Your task to perform on an android device: clear all cookies in the chrome app Image 0: 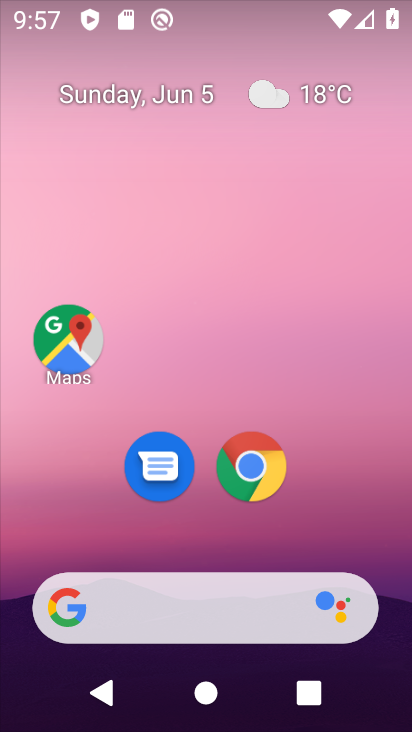
Step 0: click (250, 465)
Your task to perform on an android device: clear all cookies in the chrome app Image 1: 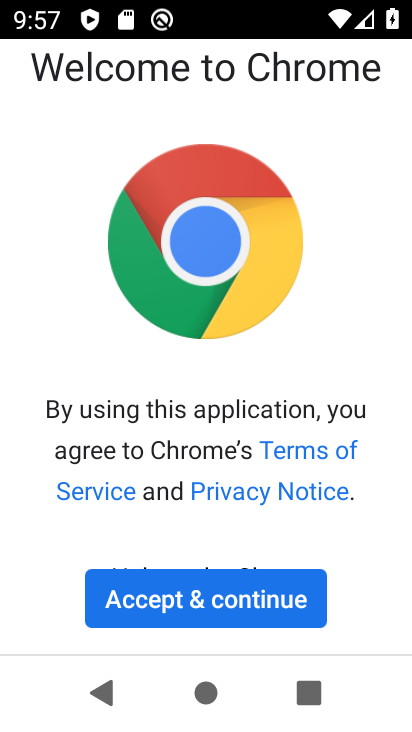
Step 1: click (203, 602)
Your task to perform on an android device: clear all cookies in the chrome app Image 2: 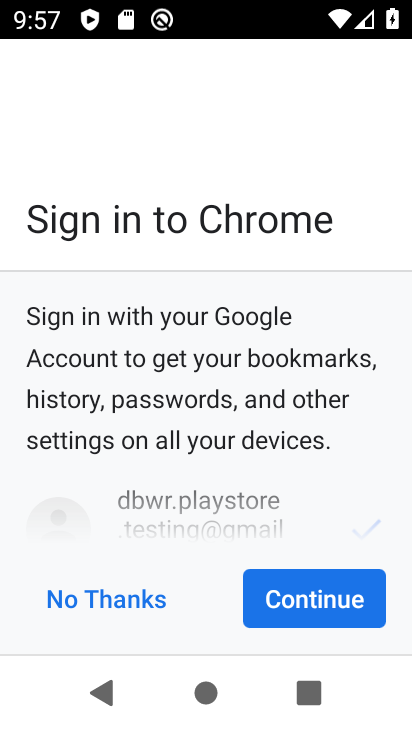
Step 2: click (309, 600)
Your task to perform on an android device: clear all cookies in the chrome app Image 3: 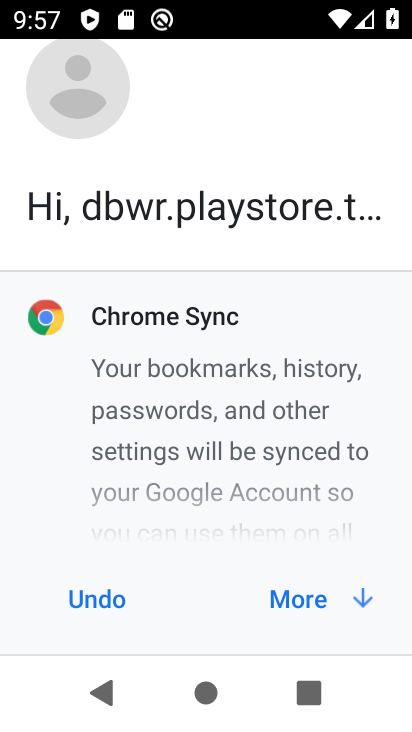
Step 3: click (309, 600)
Your task to perform on an android device: clear all cookies in the chrome app Image 4: 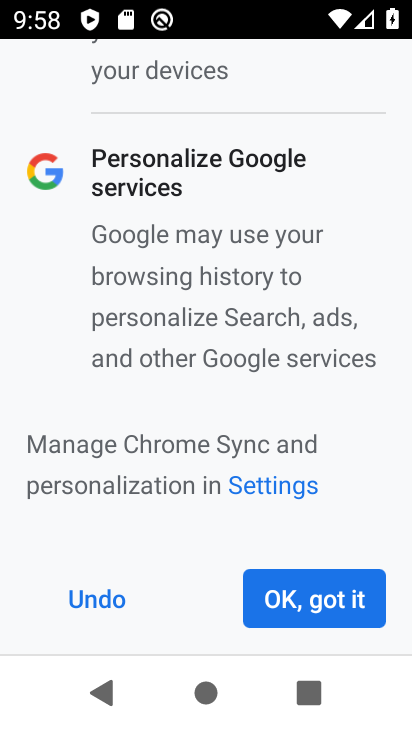
Step 4: click (309, 600)
Your task to perform on an android device: clear all cookies in the chrome app Image 5: 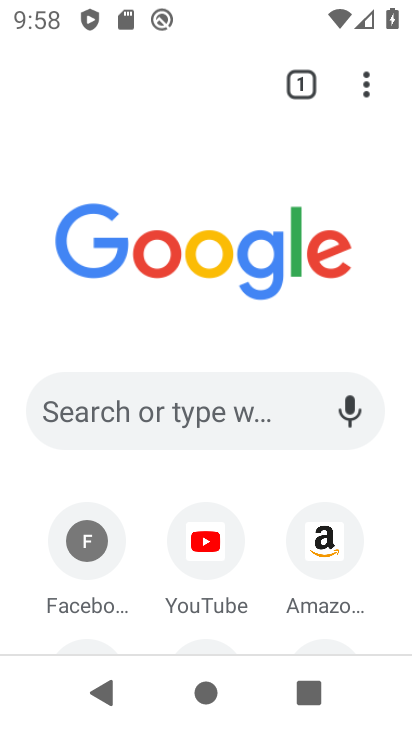
Step 5: click (368, 82)
Your task to perform on an android device: clear all cookies in the chrome app Image 6: 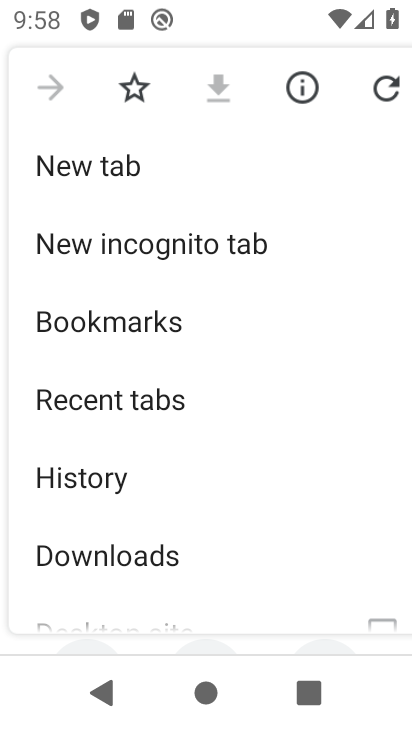
Step 6: drag from (154, 364) to (168, 268)
Your task to perform on an android device: clear all cookies in the chrome app Image 7: 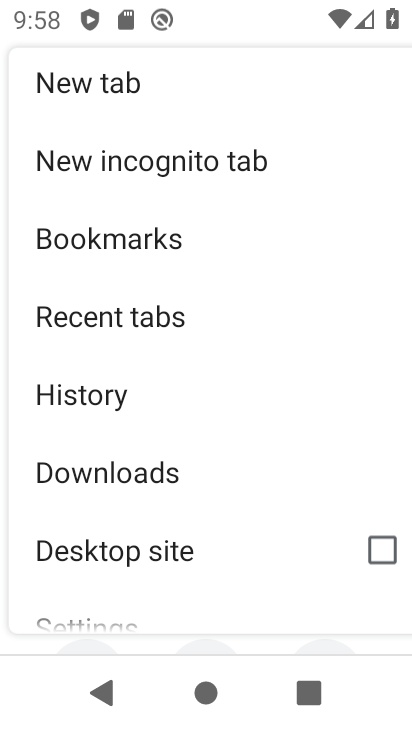
Step 7: drag from (118, 423) to (151, 338)
Your task to perform on an android device: clear all cookies in the chrome app Image 8: 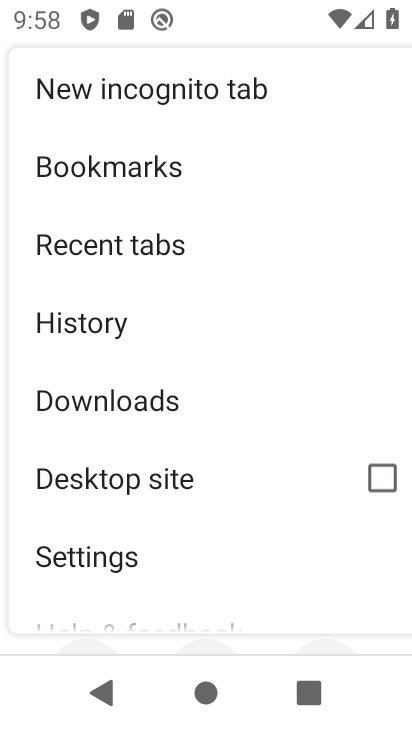
Step 8: drag from (118, 425) to (171, 333)
Your task to perform on an android device: clear all cookies in the chrome app Image 9: 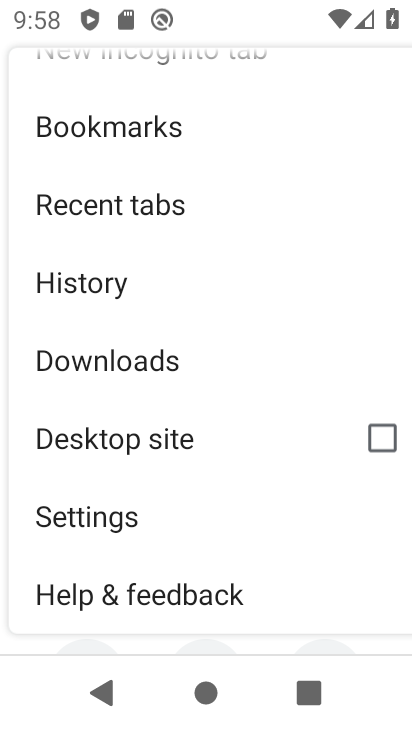
Step 9: drag from (109, 474) to (166, 356)
Your task to perform on an android device: clear all cookies in the chrome app Image 10: 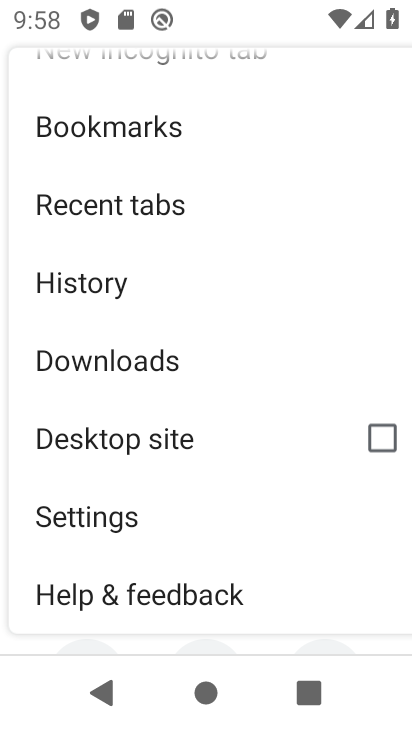
Step 10: click (113, 519)
Your task to perform on an android device: clear all cookies in the chrome app Image 11: 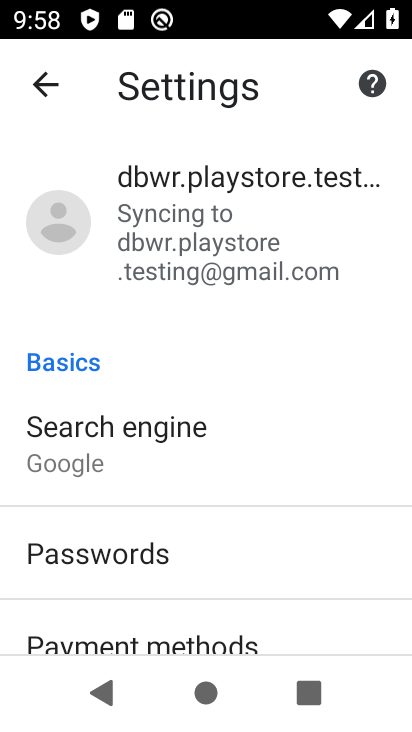
Step 11: drag from (204, 536) to (232, 415)
Your task to perform on an android device: clear all cookies in the chrome app Image 12: 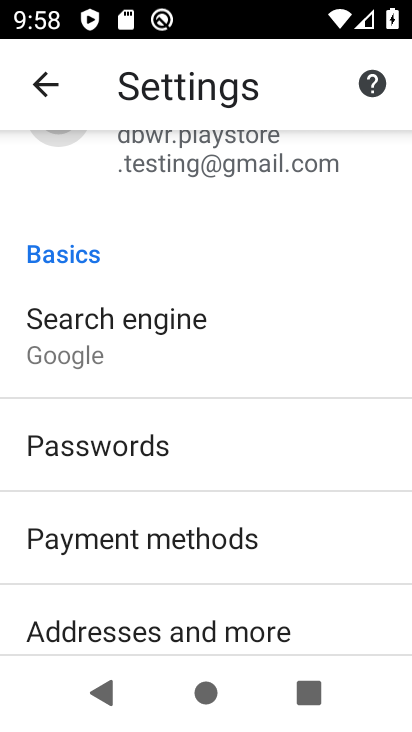
Step 12: drag from (217, 558) to (288, 443)
Your task to perform on an android device: clear all cookies in the chrome app Image 13: 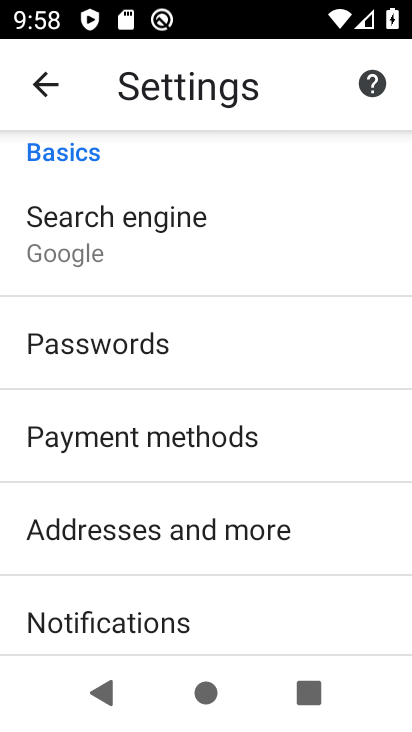
Step 13: drag from (211, 556) to (249, 460)
Your task to perform on an android device: clear all cookies in the chrome app Image 14: 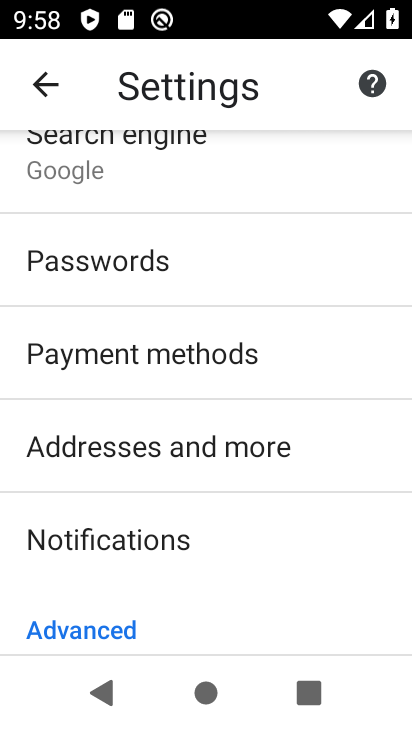
Step 14: drag from (195, 570) to (270, 453)
Your task to perform on an android device: clear all cookies in the chrome app Image 15: 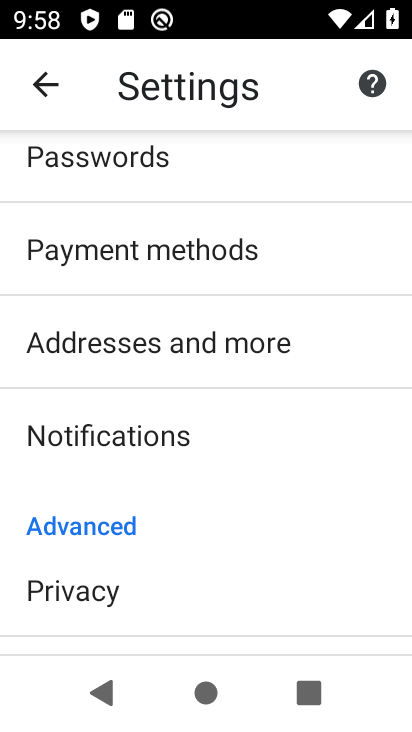
Step 15: drag from (178, 558) to (256, 431)
Your task to perform on an android device: clear all cookies in the chrome app Image 16: 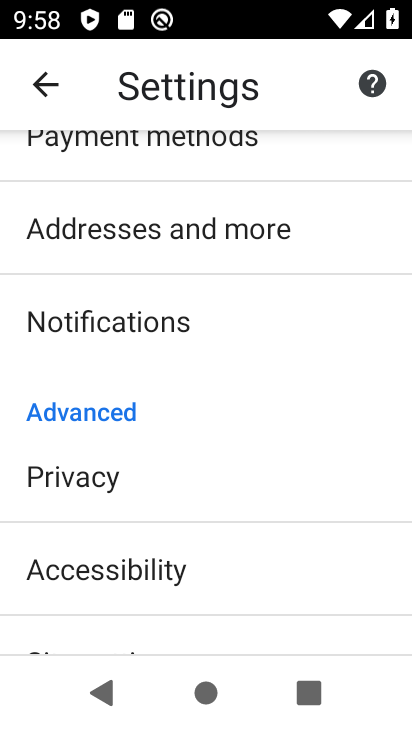
Step 16: drag from (226, 569) to (284, 438)
Your task to perform on an android device: clear all cookies in the chrome app Image 17: 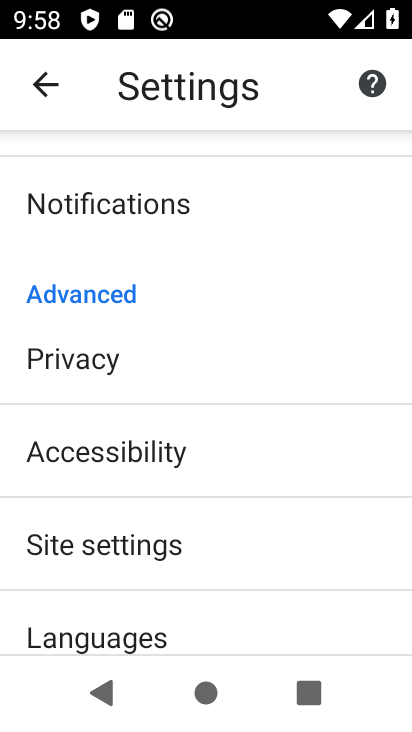
Step 17: click (105, 376)
Your task to perform on an android device: clear all cookies in the chrome app Image 18: 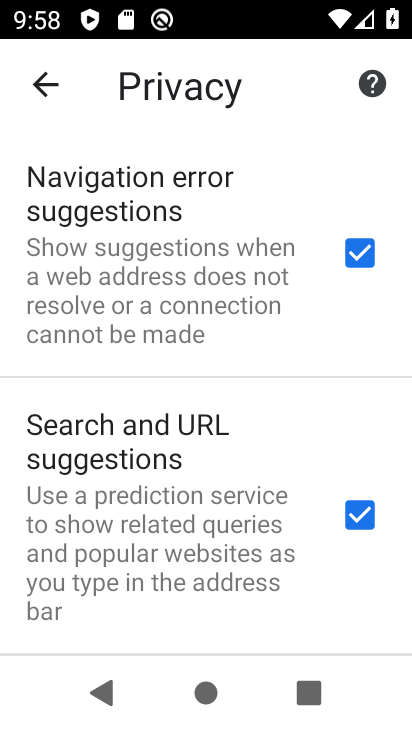
Step 18: drag from (157, 618) to (229, 415)
Your task to perform on an android device: clear all cookies in the chrome app Image 19: 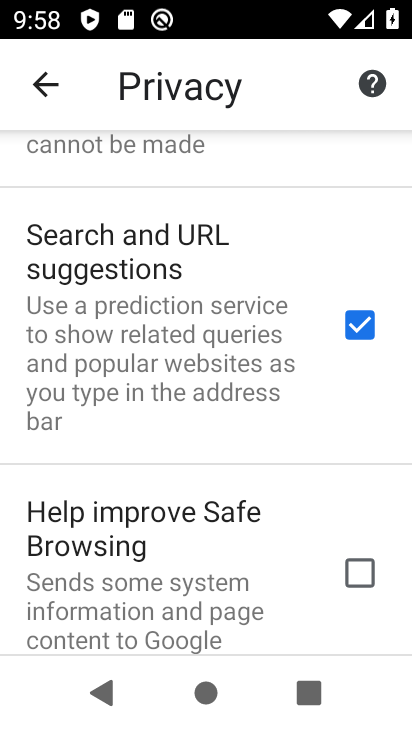
Step 19: drag from (210, 561) to (258, 389)
Your task to perform on an android device: clear all cookies in the chrome app Image 20: 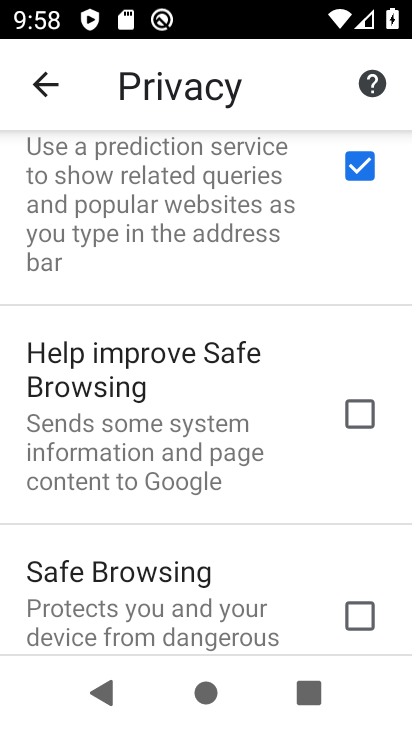
Step 20: drag from (234, 579) to (248, 467)
Your task to perform on an android device: clear all cookies in the chrome app Image 21: 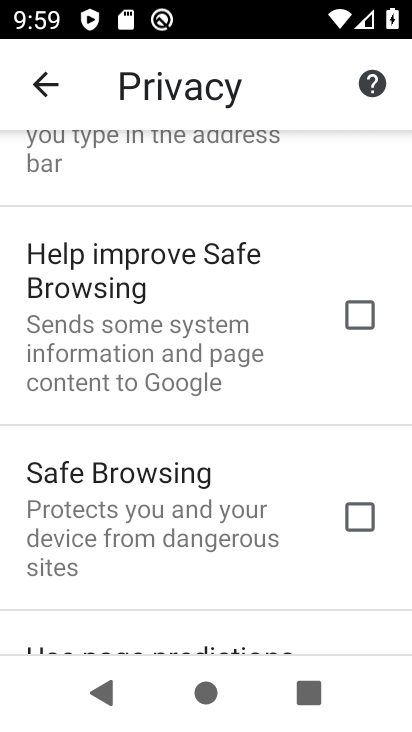
Step 21: drag from (217, 602) to (250, 480)
Your task to perform on an android device: clear all cookies in the chrome app Image 22: 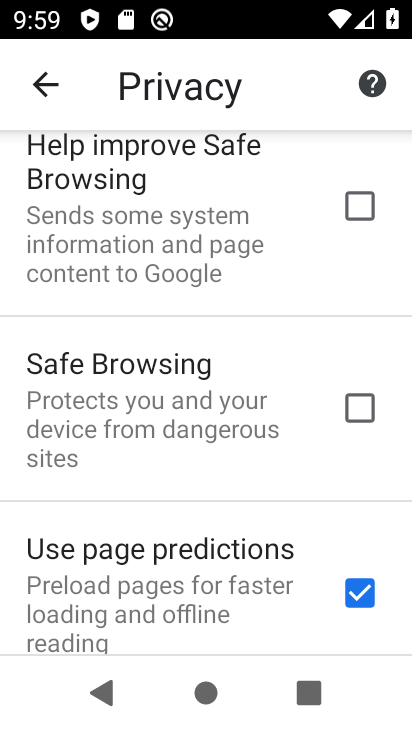
Step 22: drag from (204, 524) to (240, 402)
Your task to perform on an android device: clear all cookies in the chrome app Image 23: 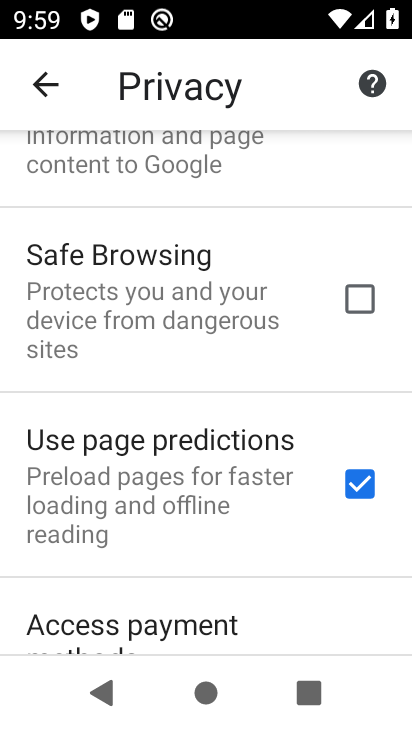
Step 23: drag from (155, 603) to (221, 459)
Your task to perform on an android device: clear all cookies in the chrome app Image 24: 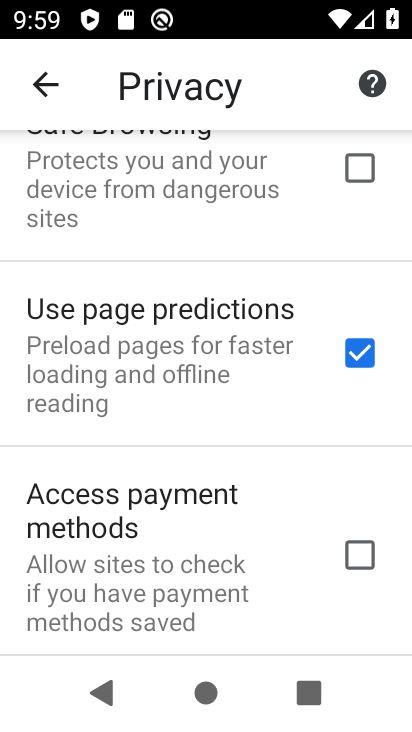
Step 24: drag from (190, 538) to (253, 394)
Your task to perform on an android device: clear all cookies in the chrome app Image 25: 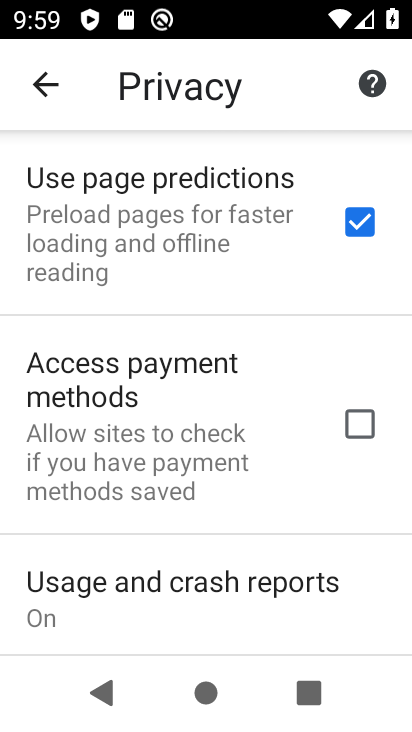
Step 25: drag from (188, 560) to (247, 392)
Your task to perform on an android device: clear all cookies in the chrome app Image 26: 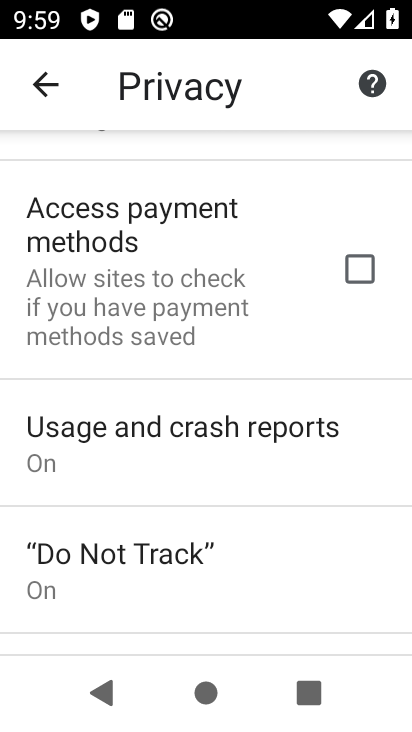
Step 26: drag from (167, 527) to (273, 396)
Your task to perform on an android device: clear all cookies in the chrome app Image 27: 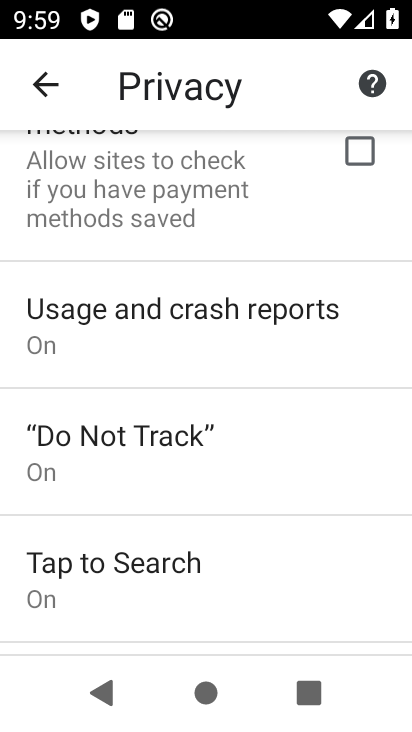
Step 27: drag from (132, 531) to (240, 407)
Your task to perform on an android device: clear all cookies in the chrome app Image 28: 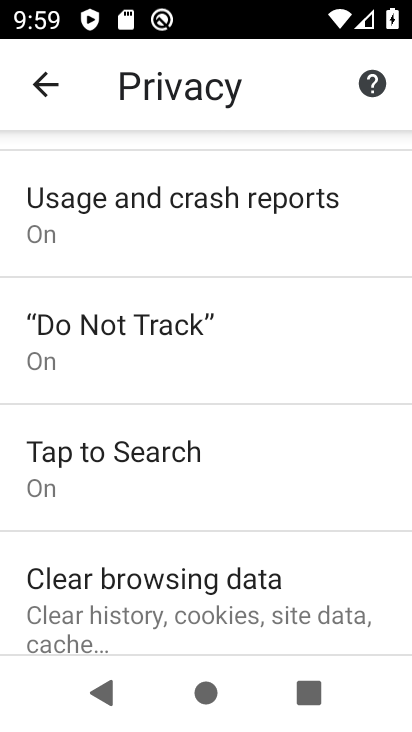
Step 28: click (168, 573)
Your task to perform on an android device: clear all cookies in the chrome app Image 29: 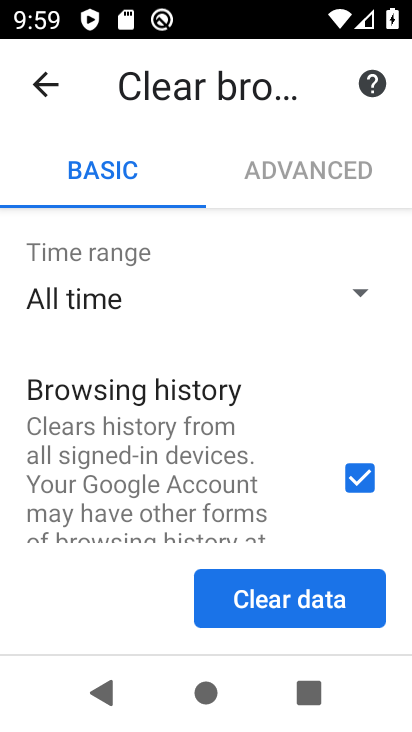
Step 29: drag from (287, 486) to (320, 337)
Your task to perform on an android device: clear all cookies in the chrome app Image 30: 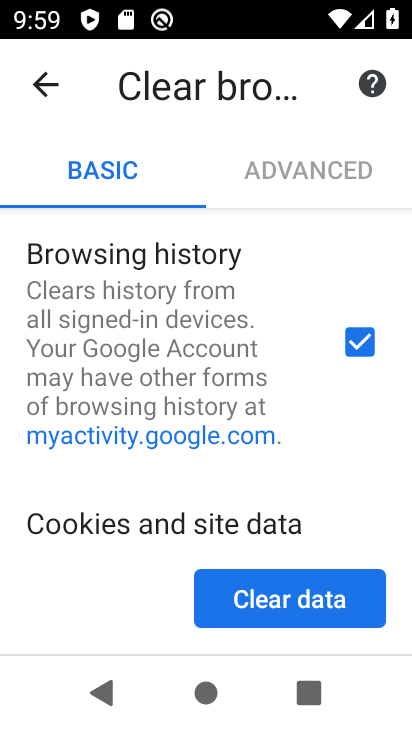
Step 30: drag from (370, 495) to (398, 420)
Your task to perform on an android device: clear all cookies in the chrome app Image 31: 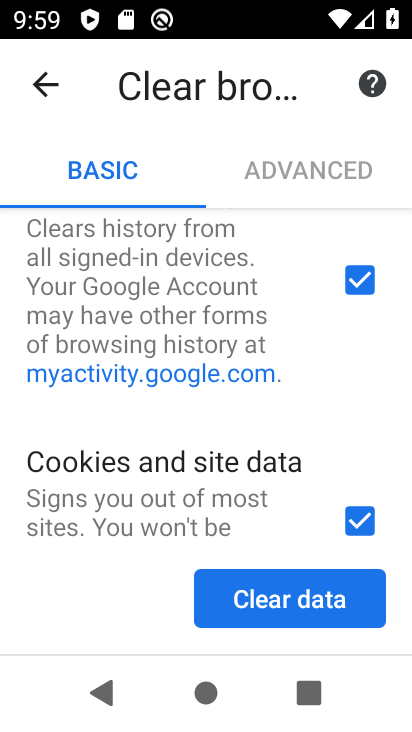
Step 31: click (318, 587)
Your task to perform on an android device: clear all cookies in the chrome app Image 32: 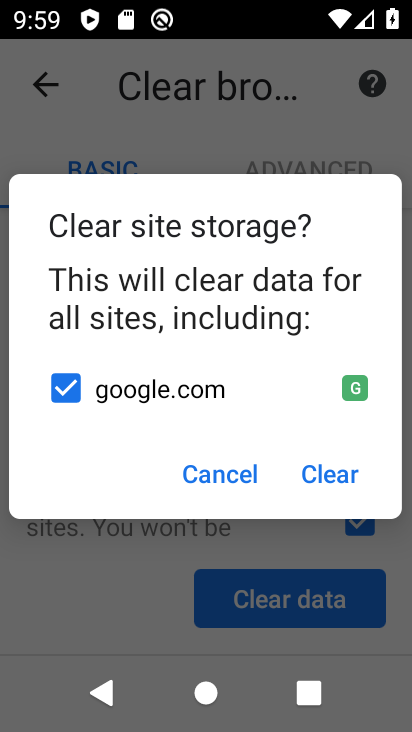
Step 32: click (337, 466)
Your task to perform on an android device: clear all cookies in the chrome app Image 33: 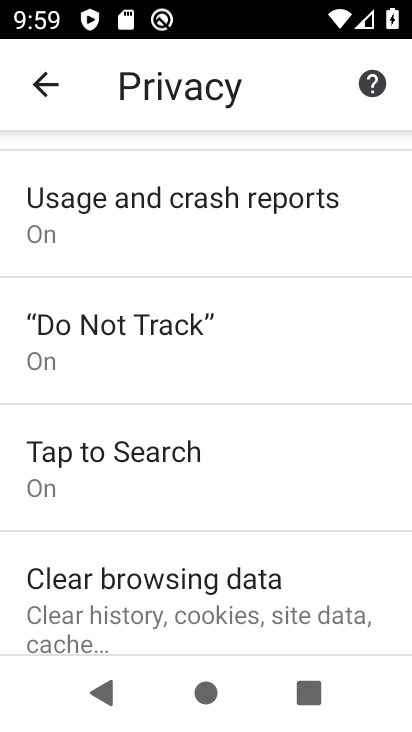
Step 33: task complete